Your task to perform on an android device: Go to eBay Image 0: 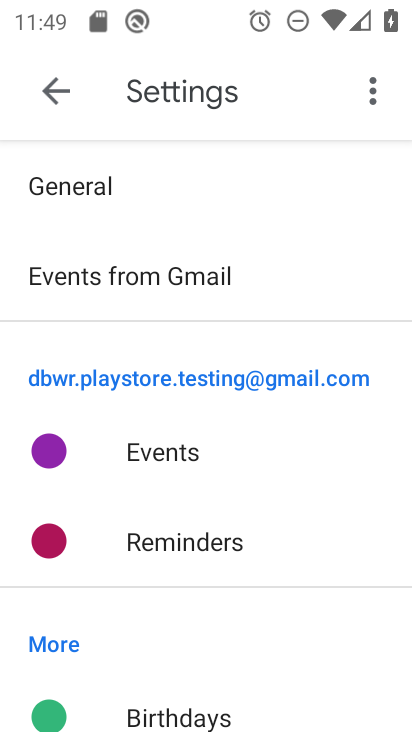
Step 0: press home button
Your task to perform on an android device: Go to eBay Image 1: 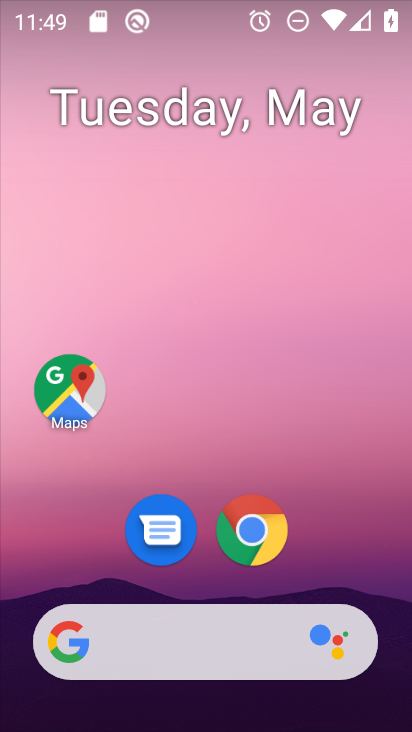
Step 1: drag from (359, 537) to (283, 92)
Your task to perform on an android device: Go to eBay Image 2: 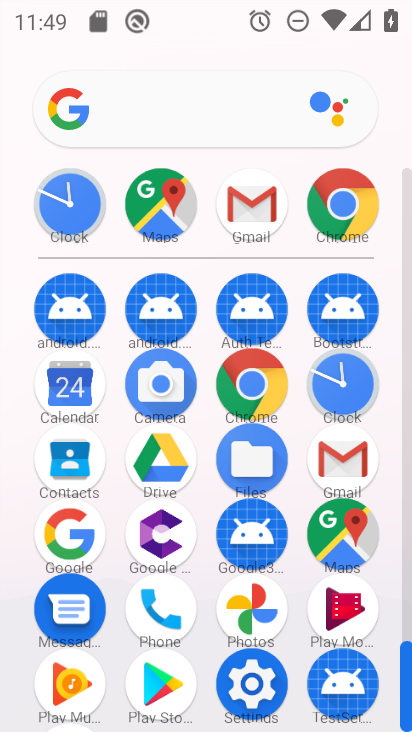
Step 2: click (247, 381)
Your task to perform on an android device: Go to eBay Image 3: 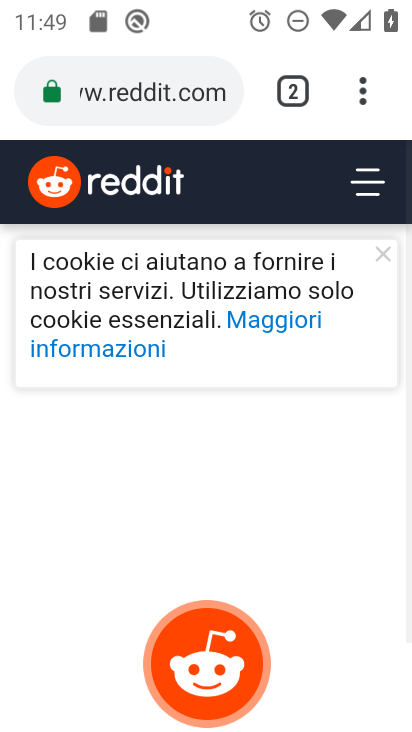
Step 3: click (178, 92)
Your task to perform on an android device: Go to eBay Image 4: 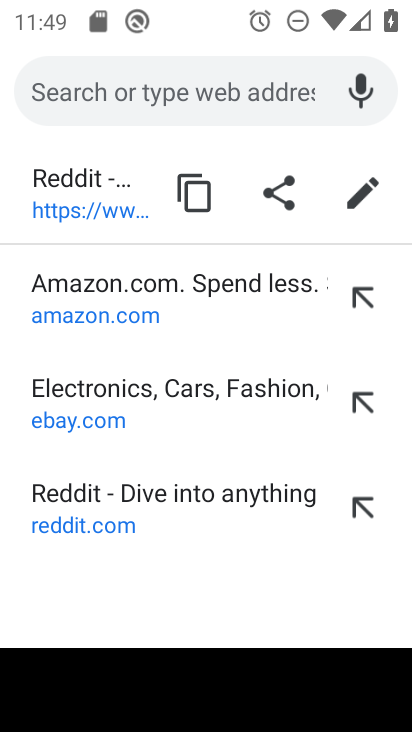
Step 4: click (103, 423)
Your task to perform on an android device: Go to eBay Image 5: 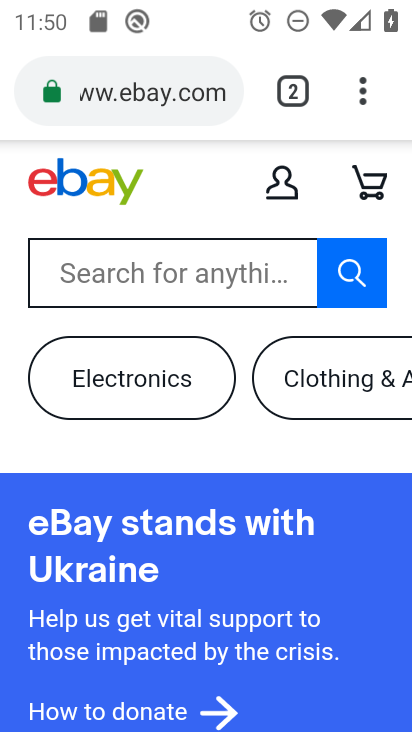
Step 5: task complete